Your task to perform on an android device: create a new album in the google photos Image 0: 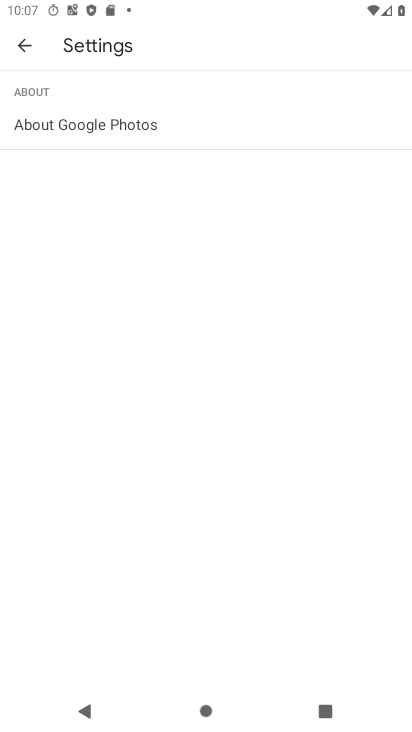
Step 0: press home button
Your task to perform on an android device: create a new album in the google photos Image 1: 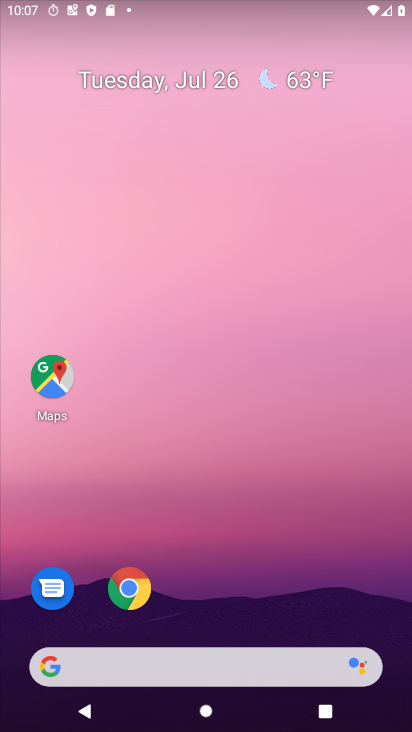
Step 1: drag from (157, 605) to (166, 42)
Your task to perform on an android device: create a new album in the google photos Image 2: 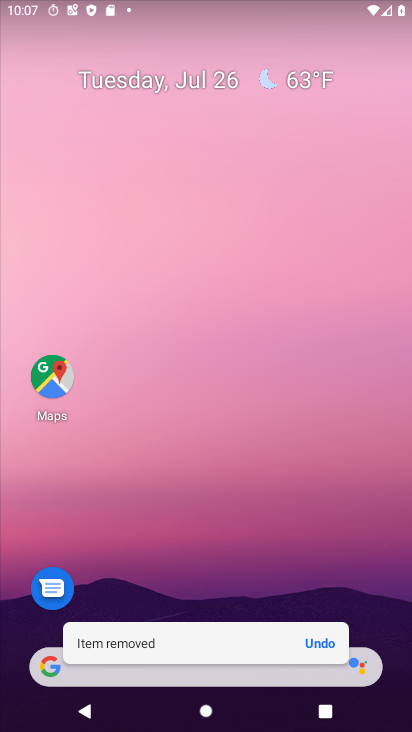
Step 2: click (333, 640)
Your task to perform on an android device: create a new album in the google photos Image 3: 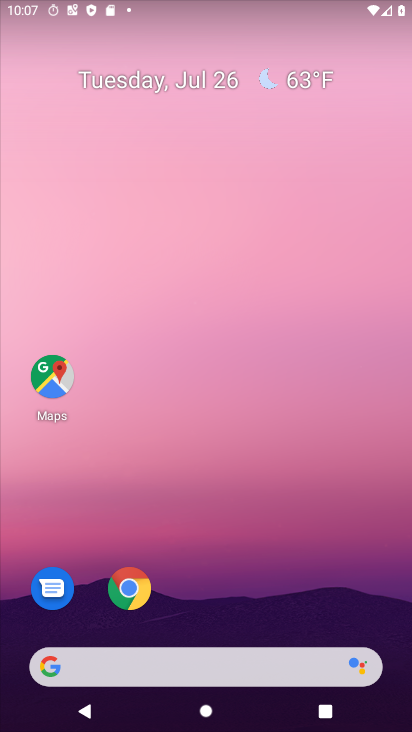
Step 3: drag from (272, 611) to (253, 24)
Your task to perform on an android device: create a new album in the google photos Image 4: 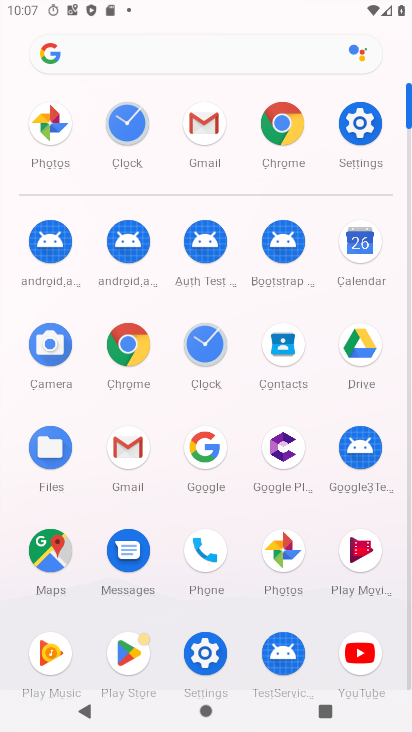
Step 4: click (42, 125)
Your task to perform on an android device: create a new album in the google photos Image 5: 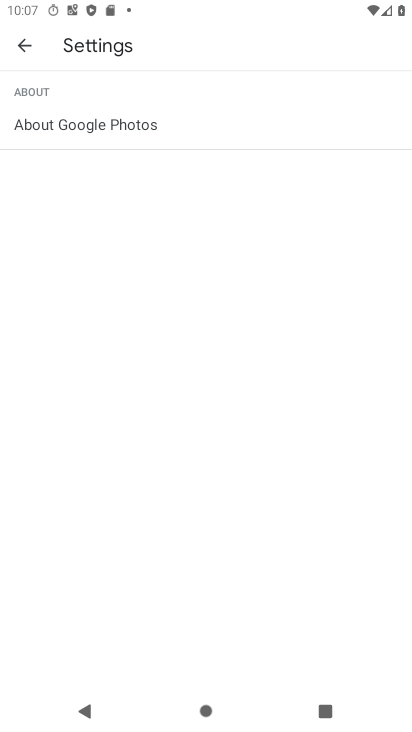
Step 5: click (11, 44)
Your task to perform on an android device: create a new album in the google photos Image 6: 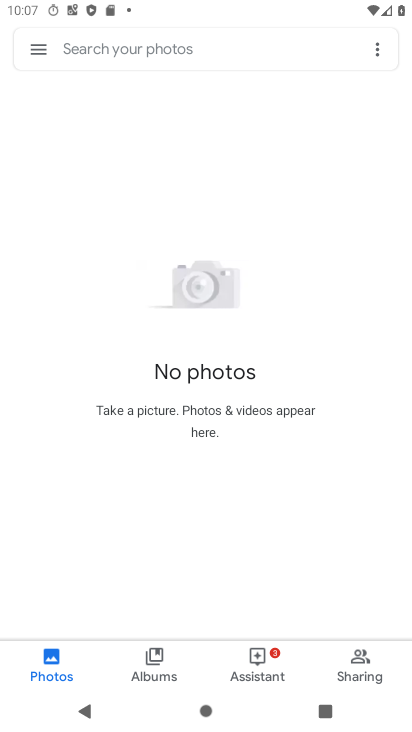
Step 6: task complete